Your task to perform on an android device: turn off sleep mode Image 0: 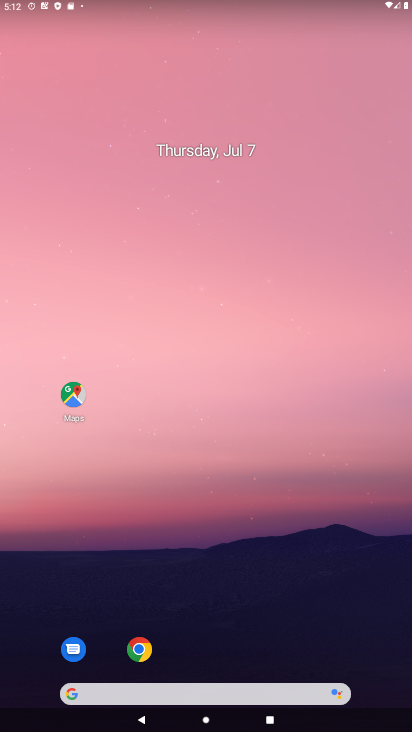
Step 0: drag from (364, 667) to (191, 92)
Your task to perform on an android device: turn off sleep mode Image 1: 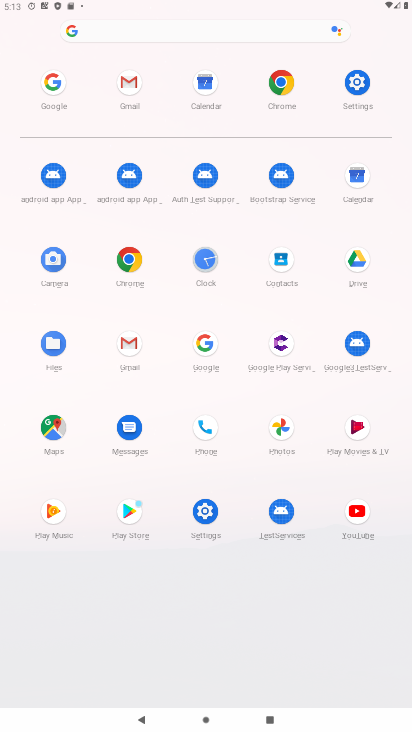
Step 1: click (351, 92)
Your task to perform on an android device: turn off sleep mode Image 2: 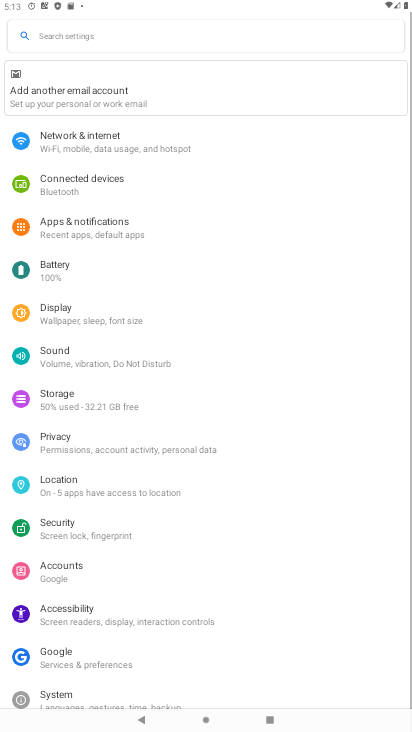
Step 2: task complete